Your task to perform on an android device: Go to wifi settings Image 0: 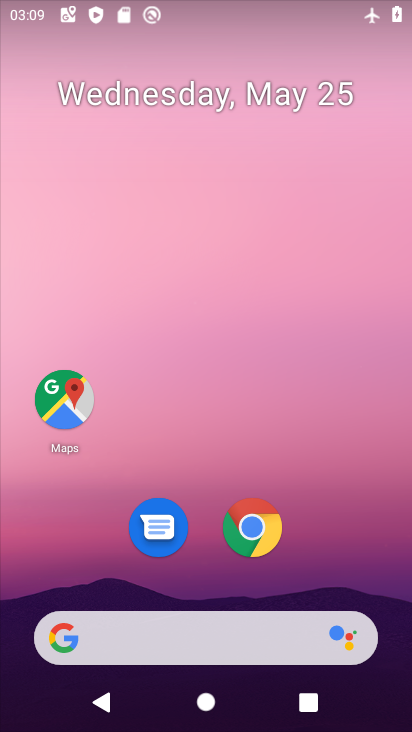
Step 0: drag from (225, 548) to (212, 300)
Your task to perform on an android device: Go to wifi settings Image 1: 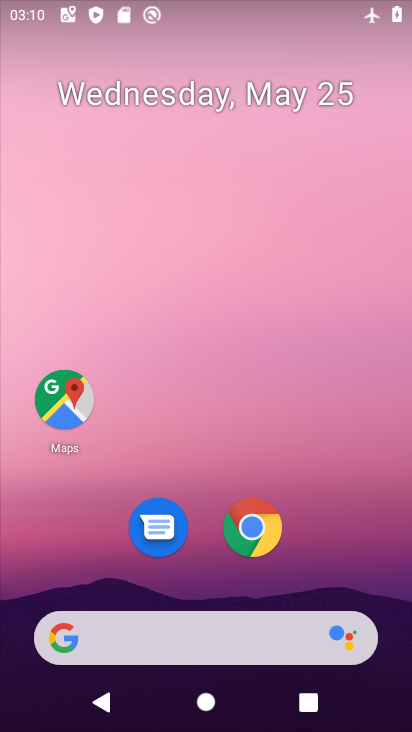
Step 1: drag from (224, 566) to (214, 287)
Your task to perform on an android device: Go to wifi settings Image 2: 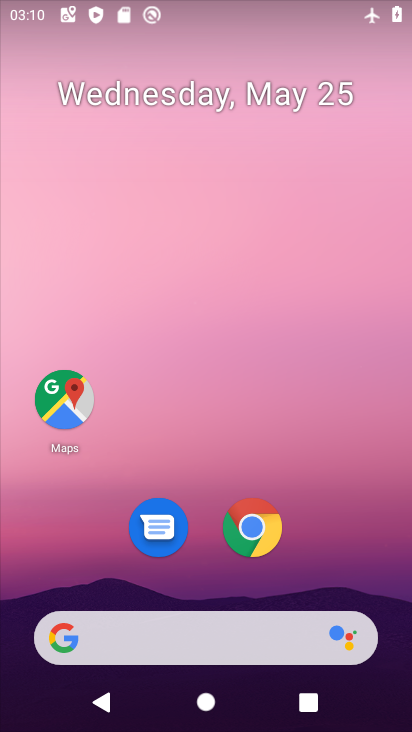
Step 2: drag from (198, 574) to (199, 230)
Your task to perform on an android device: Go to wifi settings Image 3: 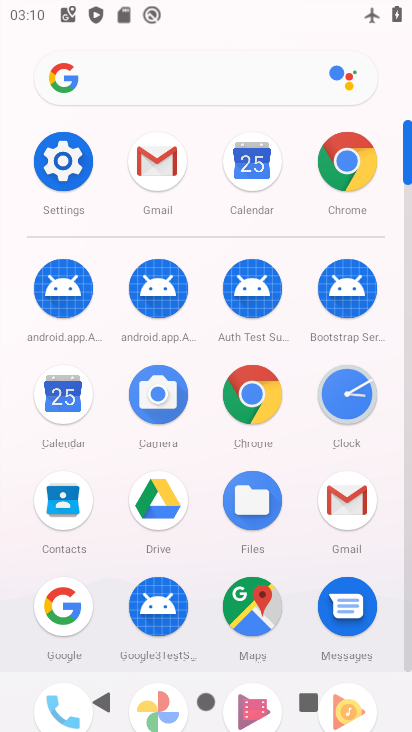
Step 3: click (85, 160)
Your task to perform on an android device: Go to wifi settings Image 4: 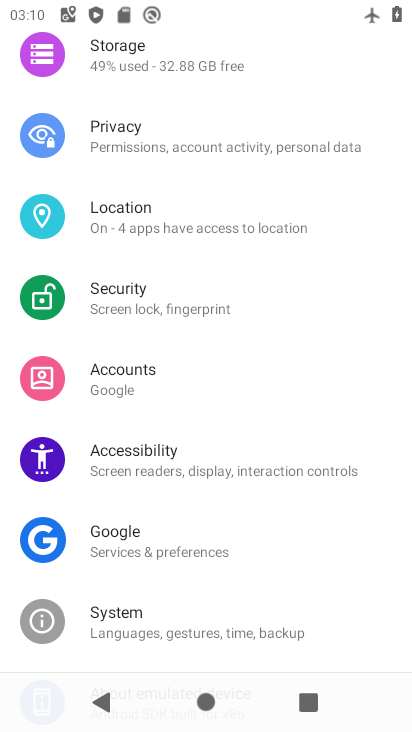
Step 4: drag from (162, 166) to (297, 702)
Your task to perform on an android device: Go to wifi settings Image 5: 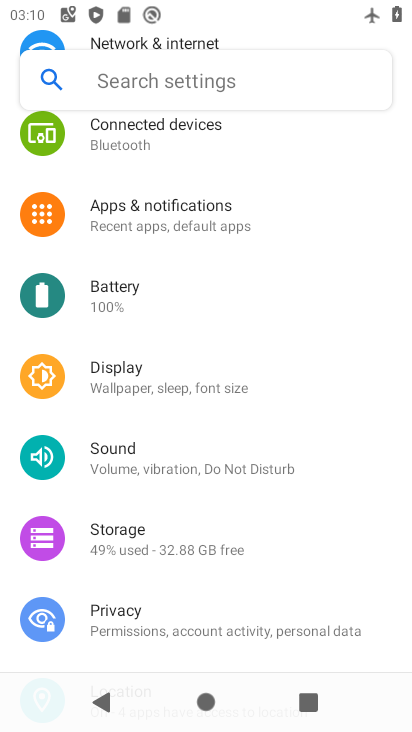
Step 5: drag from (157, 250) to (293, 711)
Your task to perform on an android device: Go to wifi settings Image 6: 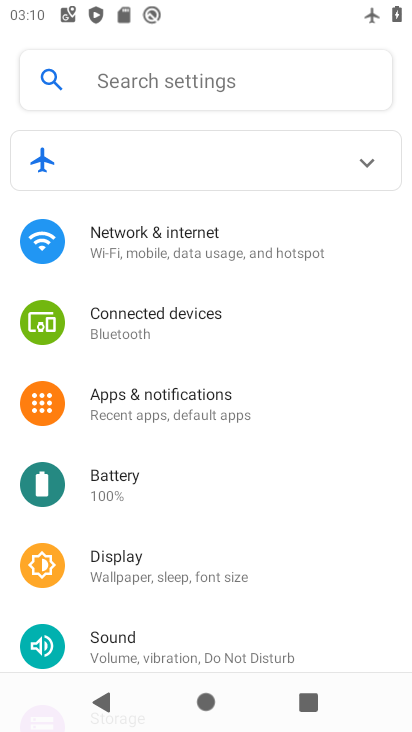
Step 6: click (154, 264)
Your task to perform on an android device: Go to wifi settings Image 7: 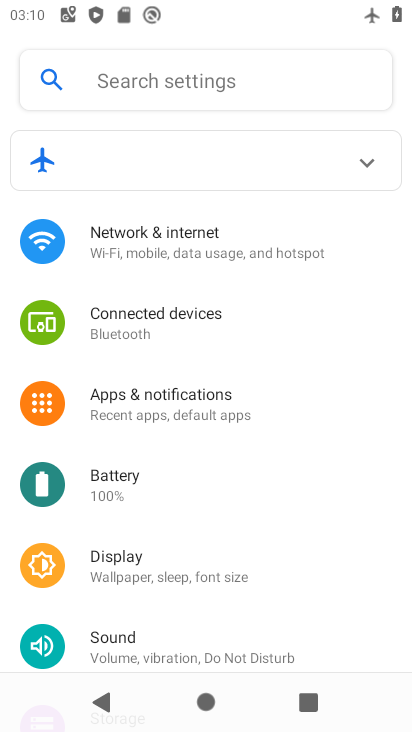
Step 7: click (154, 264)
Your task to perform on an android device: Go to wifi settings Image 8: 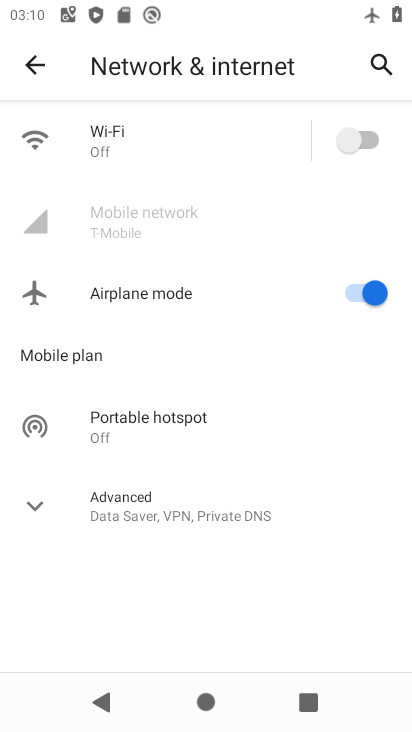
Step 8: click (224, 130)
Your task to perform on an android device: Go to wifi settings Image 9: 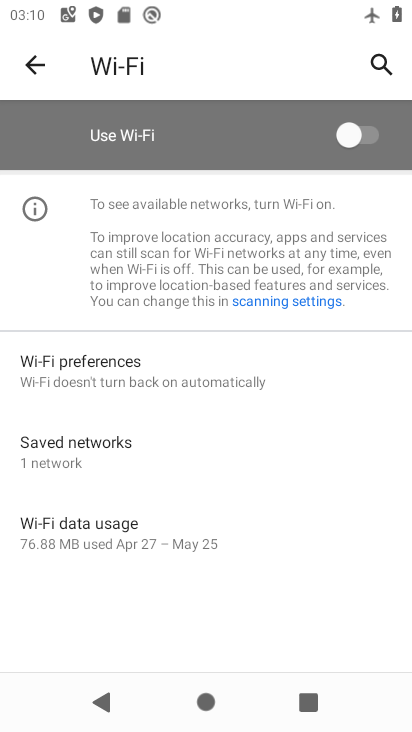
Step 9: click (302, 144)
Your task to perform on an android device: Go to wifi settings Image 10: 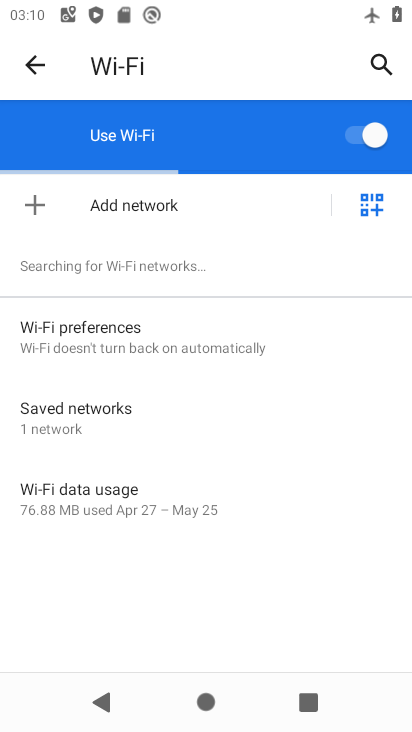
Step 10: task complete